Your task to perform on an android device: Open internet settings Image 0: 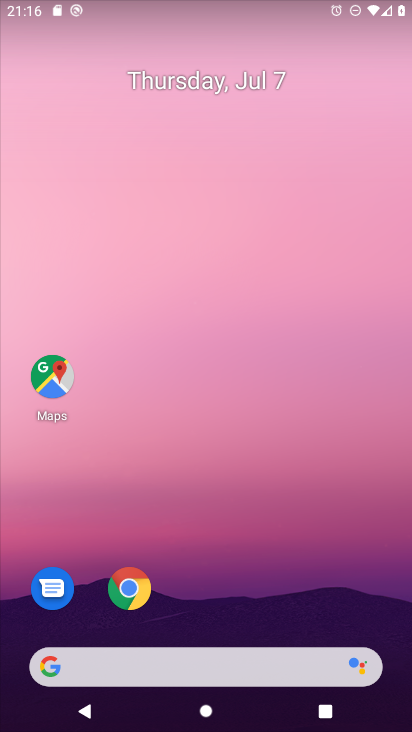
Step 0: drag from (229, 629) to (245, 310)
Your task to perform on an android device: Open internet settings Image 1: 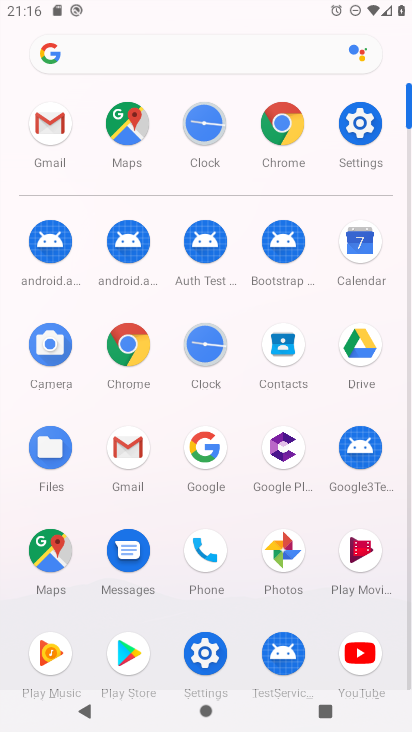
Step 1: click (338, 110)
Your task to perform on an android device: Open internet settings Image 2: 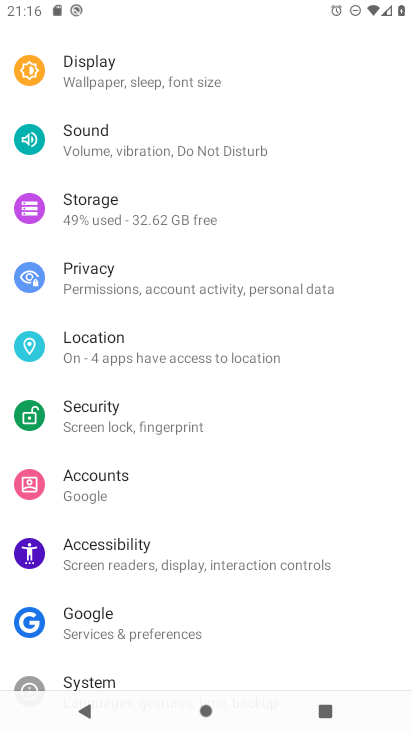
Step 2: drag from (189, 99) to (166, 652)
Your task to perform on an android device: Open internet settings Image 3: 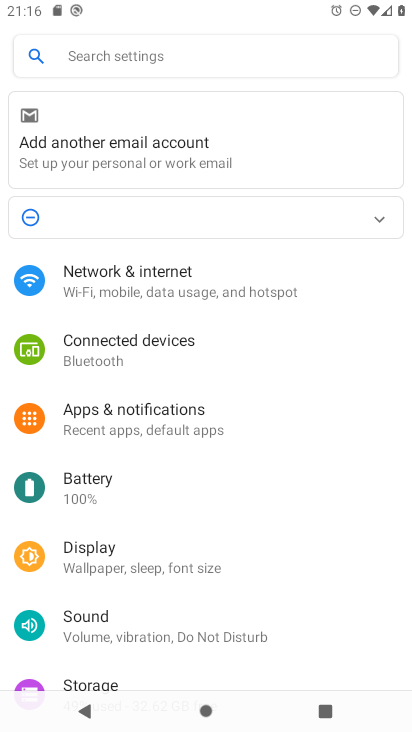
Step 3: click (164, 274)
Your task to perform on an android device: Open internet settings Image 4: 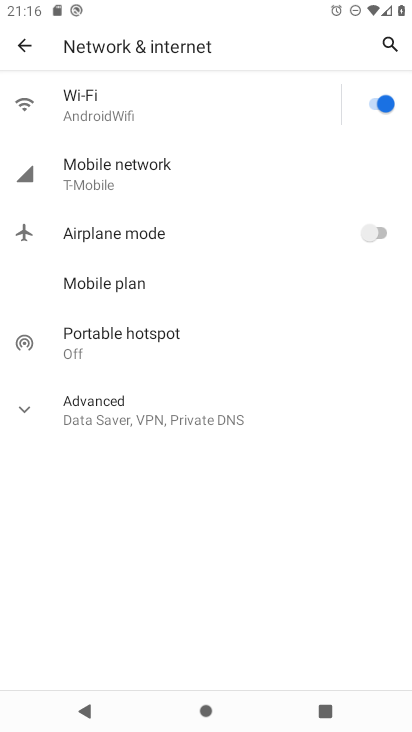
Step 4: task complete